Your task to perform on an android device: turn on translation in the chrome app Image 0: 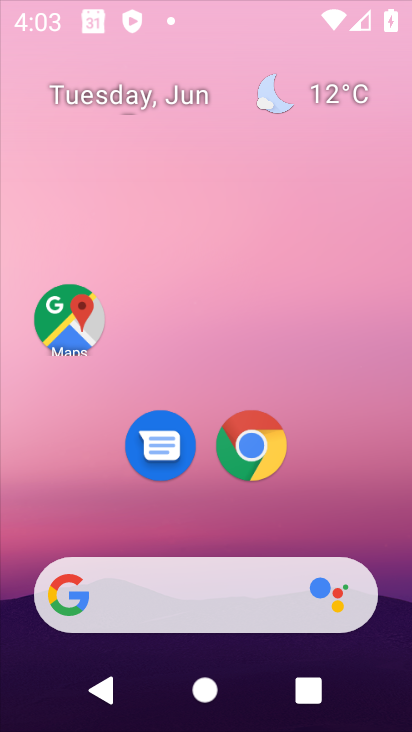
Step 0: click (356, 66)
Your task to perform on an android device: turn on translation in the chrome app Image 1: 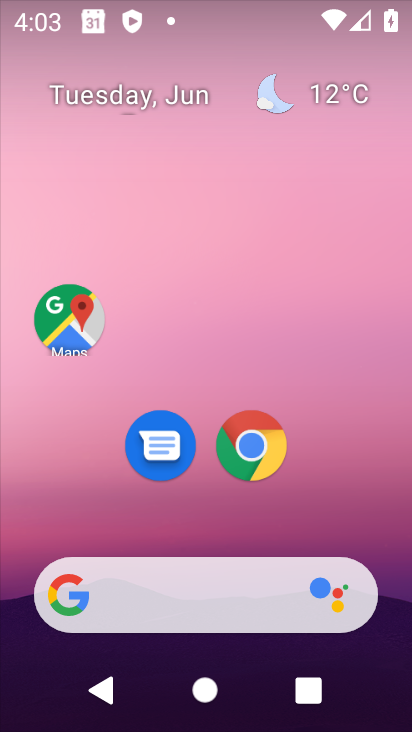
Step 1: drag from (359, 473) to (330, 0)
Your task to perform on an android device: turn on translation in the chrome app Image 2: 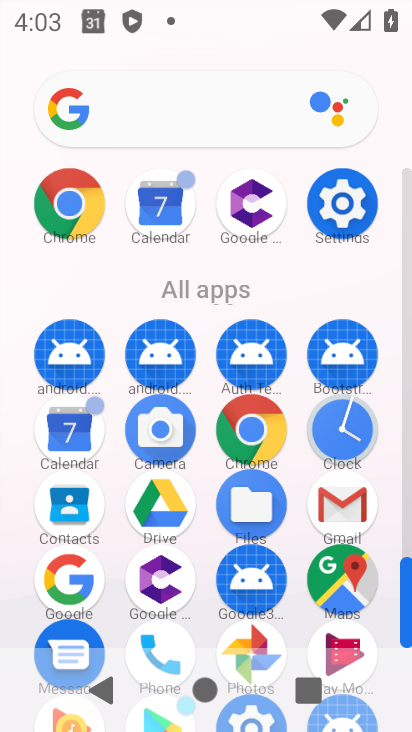
Step 2: click (59, 215)
Your task to perform on an android device: turn on translation in the chrome app Image 3: 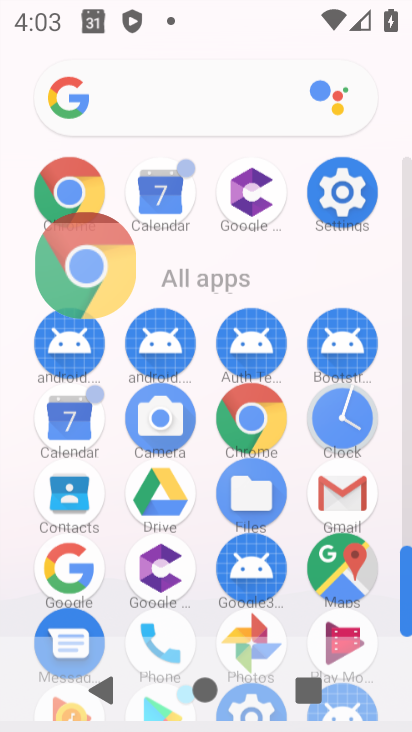
Step 3: click (59, 214)
Your task to perform on an android device: turn on translation in the chrome app Image 4: 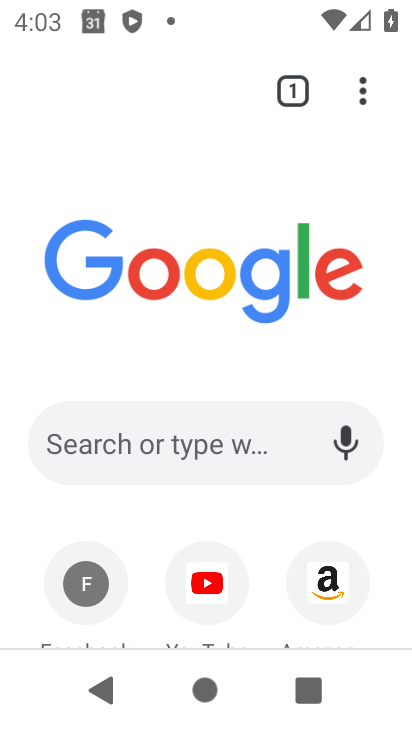
Step 4: drag from (355, 94) to (189, 506)
Your task to perform on an android device: turn on translation in the chrome app Image 5: 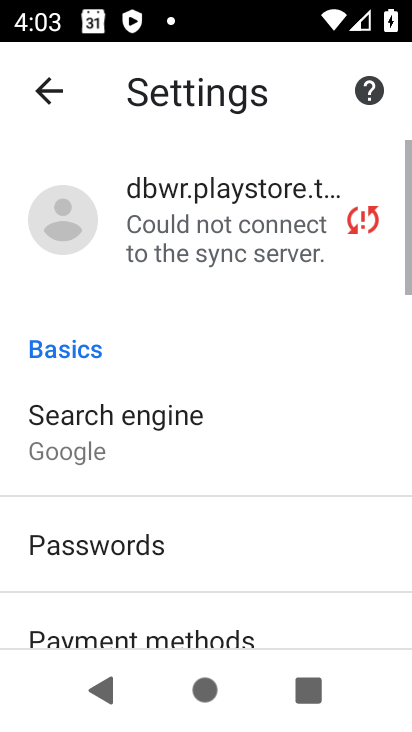
Step 5: drag from (213, 561) to (303, 65)
Your task to perform on an android device: turn on translation in the chrome app Image 6: 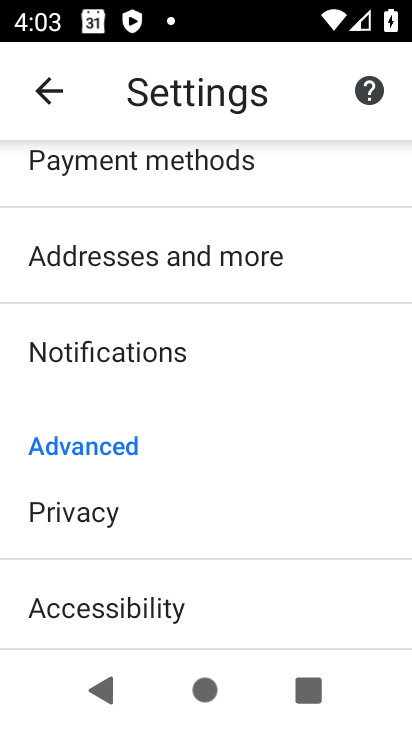
Step 6: drag from (206, 602) to (296, 52)
Your task to perform on an android device: turn on translation in the chrome app Image 7: 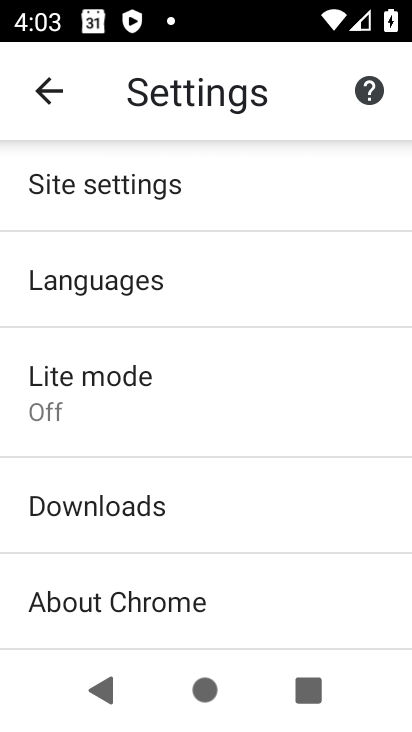
Step 7: click (179, 268)
Your task to perform on an android device: turn on translation in the chrome app Image 8: 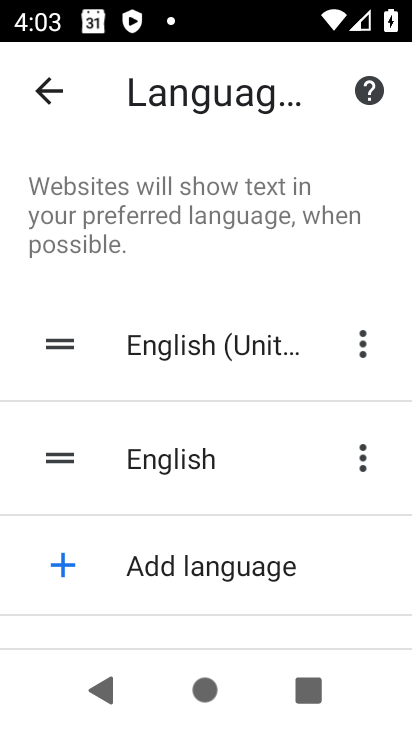
Step 8: task complete